Your task to perform on an android device: Open settings Image 0: 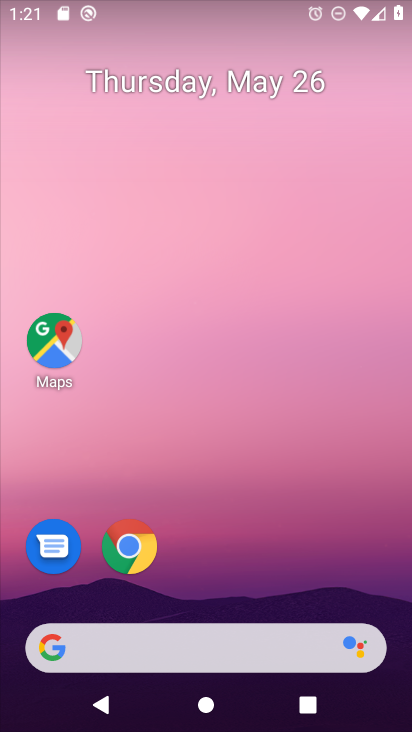
Step 0: drag from (279, 619) to (286, 43)
Your task to perform on an android device: Open settings Image 1: 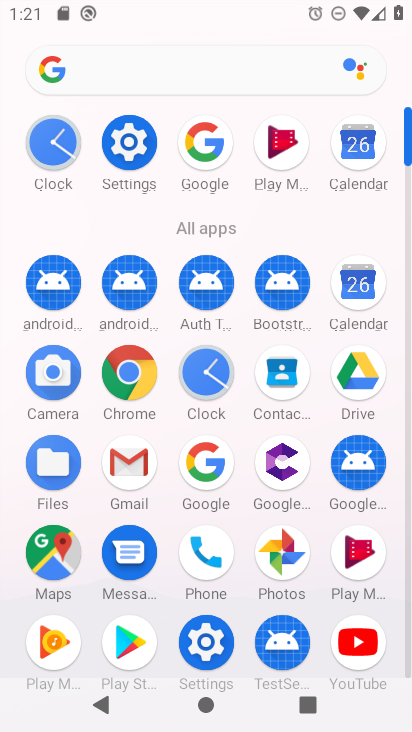
Step 1: click (144, 132)
Your task to perform on an android device: Open settings Image 2: 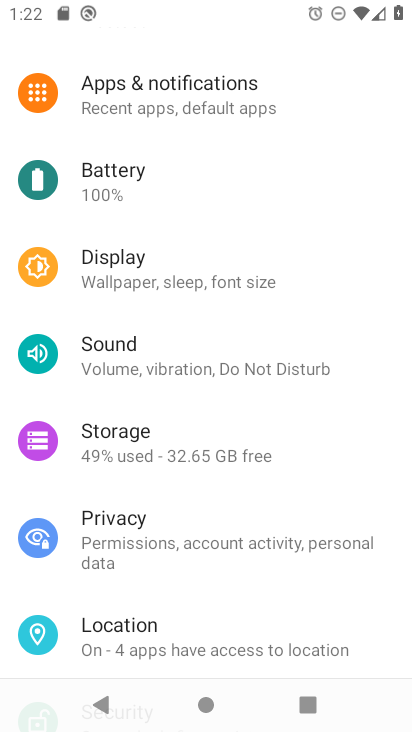
Step 2: task complete